Your task to perform on an android device: Do I have any events tomorrow? Image 0: 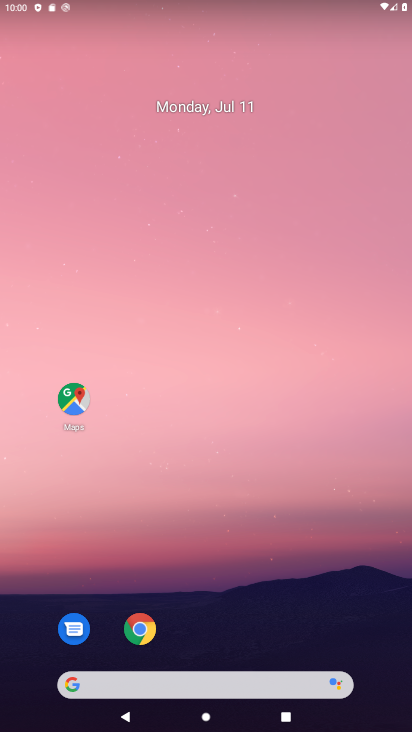
Step 0: drag from (279, 600) to (235, 167)
Your task to perform on an android device: Do I have any events tomorrow? Image 1: 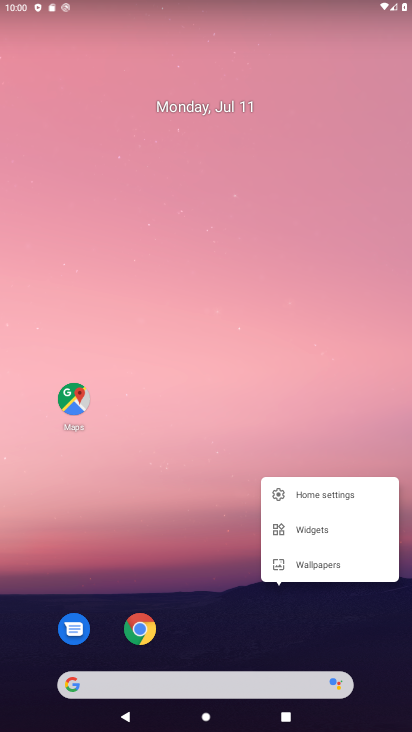
Step 1: click (197, 496)
Your task to perform on an android device: Do I have any events tomorrow? Image 2: 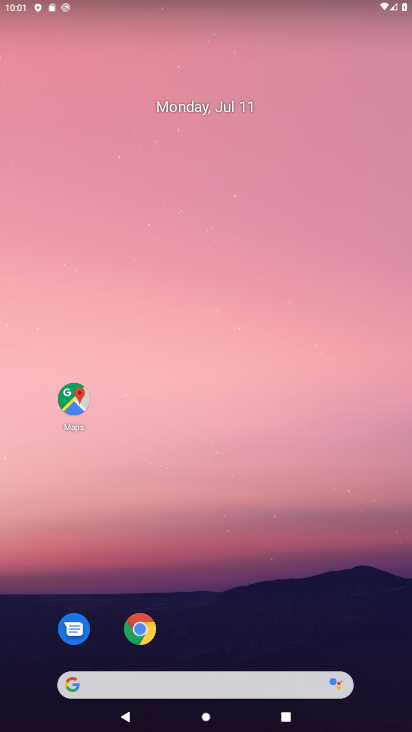
Step 2: drag from (251, 650) to (242, 136)
Your task to perform on an android device: Do I have any events tomorrow? Image 3: 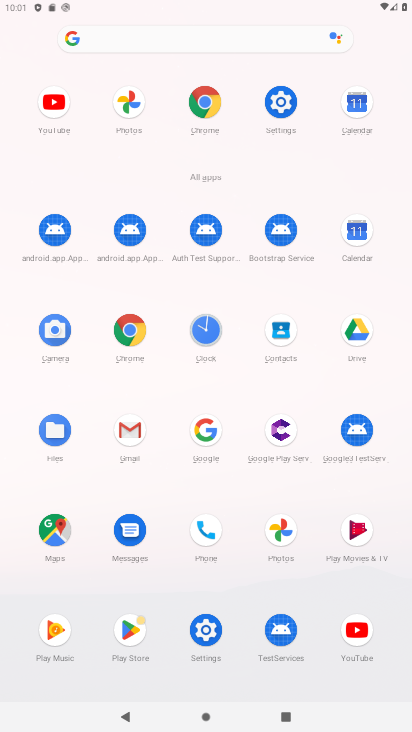
Step 3: click (367, 124)
Your task to perform on an android device: Do I have any events tomorrow? Image 4: 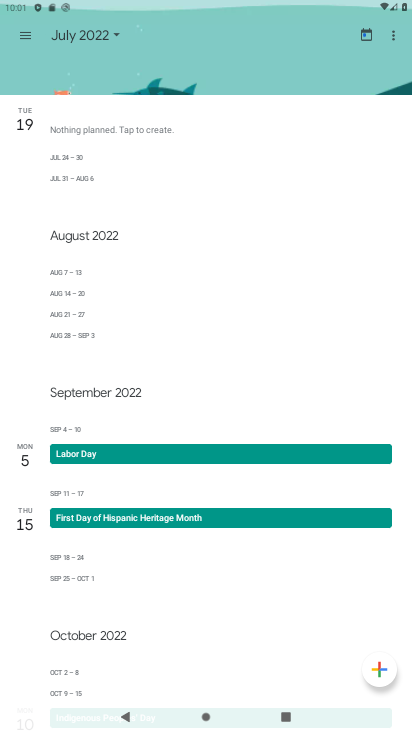
Step 4: task complete